Your task to perform on an android device: change text size in settings app Image 0: 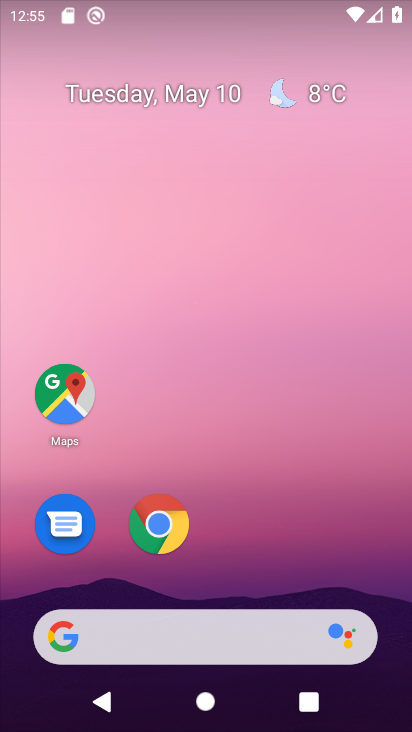
Step 0: drag from (316, 505) to (249, 71)
Your task to perform on an android device: change text size in settings app Image 1: 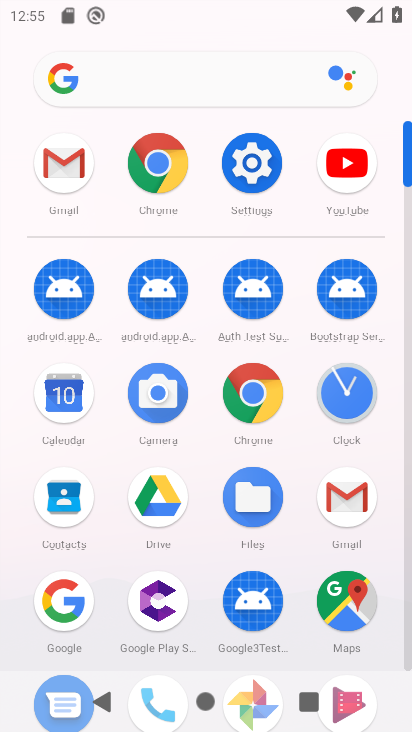
Step 1: click (242, 165)
Your task to perform on an android device: change text size in settings app Image 2: 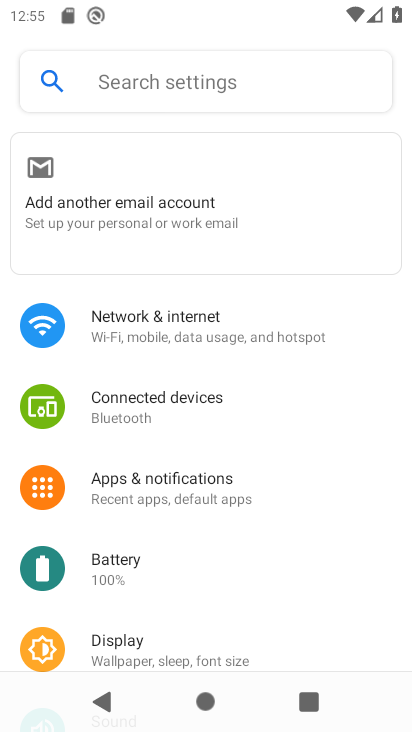
Step 2: drag from (214, 550) to (223, 131)
Your task to perform on an android device: change text size in settings app Image 3: 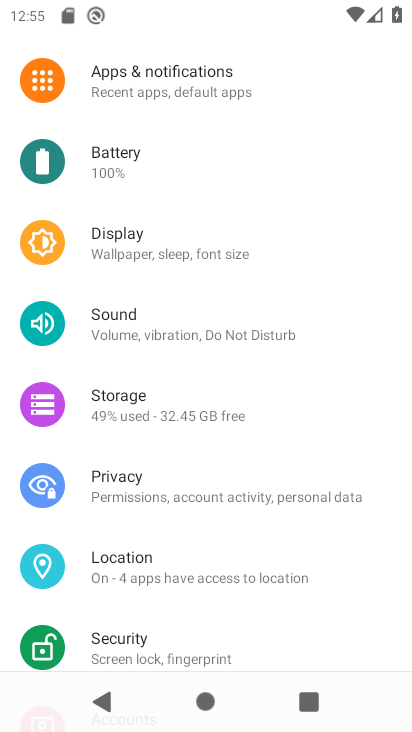
Step 3: click (210, 246)
Your task to perform on an android device: change text size in settings app Image 4: 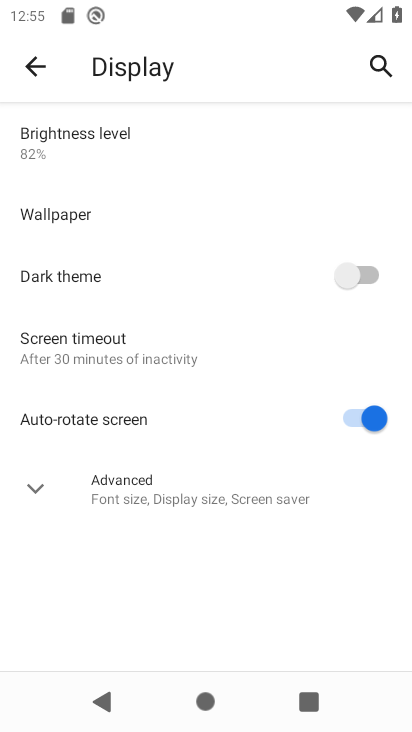
Step 4: click (36, 482)
Your task to perform on an android device: change text size in settings app Image 5: 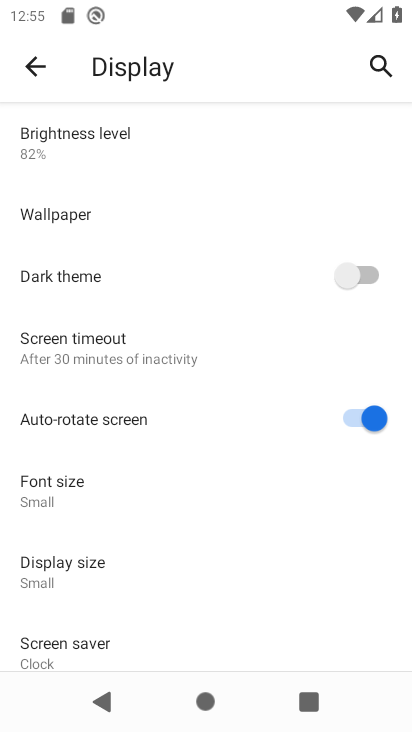
Step 5: click (93, 495)
Your task to perform on an android device: change text size in settings app Image 6: 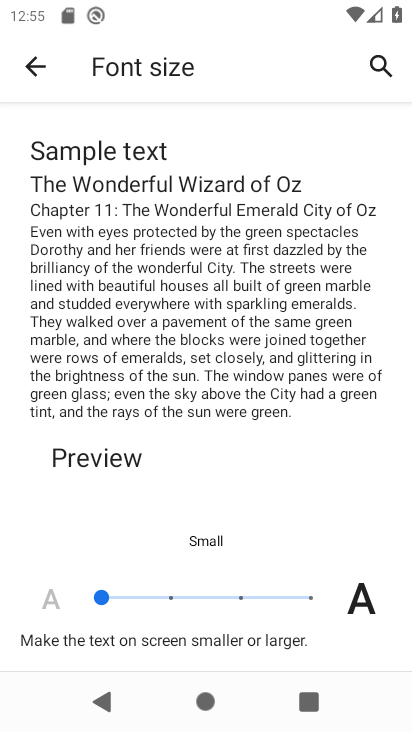
Step 6: click (168, 593)
Your task to perform on an android device: change text size in settings app Image 7: 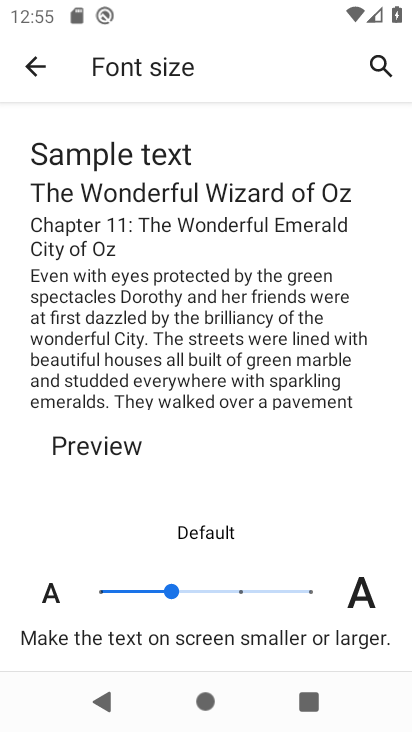
Step 7: task complete